Your task to perform on an android device: open chrome privacy settings Image 0: 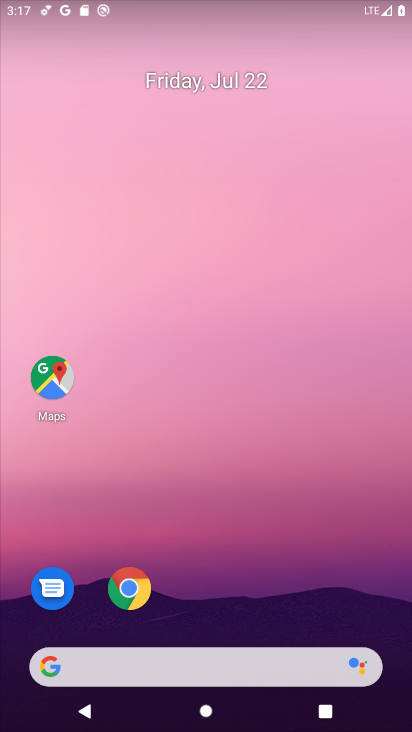
Step 0: drag from (261, 627) to (268, 103)
Your task to perform on an android device: open chrome privacy settings Image 1: 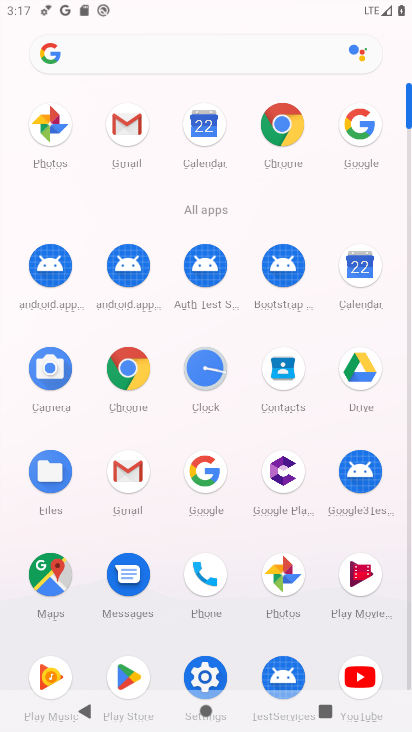
Step 1: click (270, 125)
Your task to perform on an android device: open chrome privacy settings Image 2: 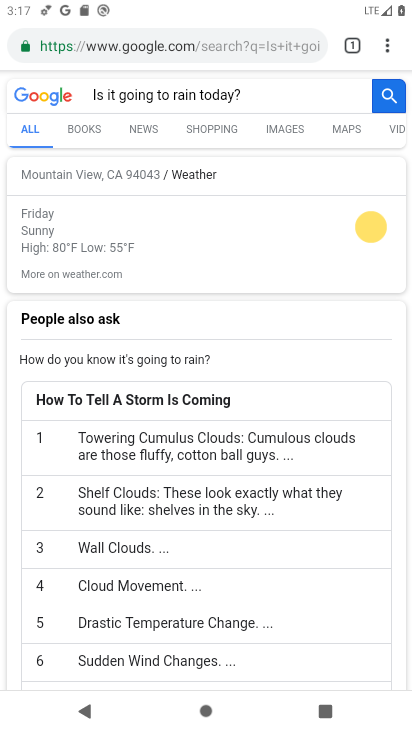
Step 2: click (384, 48)
Your task to perform on an android device: open chrome privacy settings Image 3: 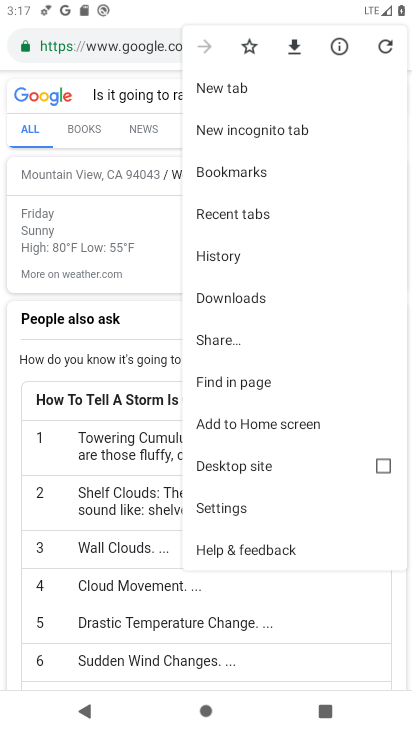
Step 3: click (251, 503)
Your task to perform on an android device: open chrome privacy settings Image 4: 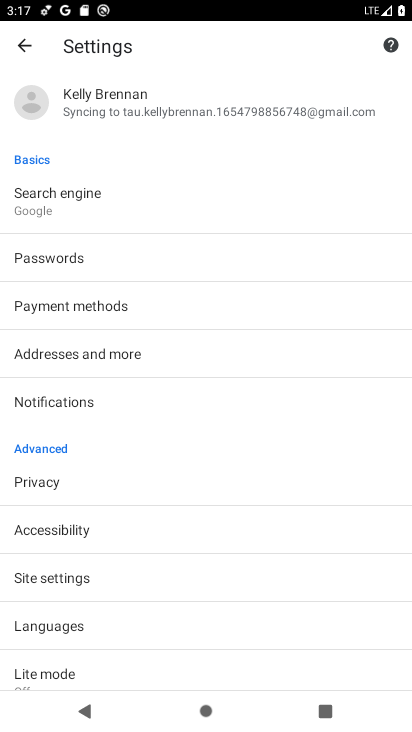
Step 4: click (31, 469)
Your task to perform on an android device: open chrome privacy settings Image 5: 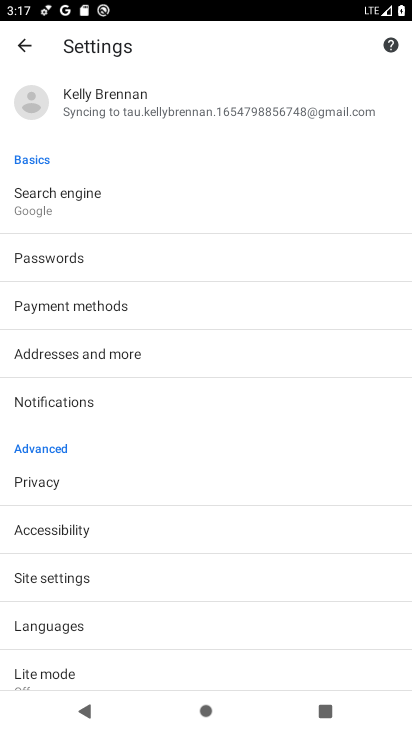
Step 5: click (40, 477)
Your task to perform on an android device: open chrome privacy settings Image 6: 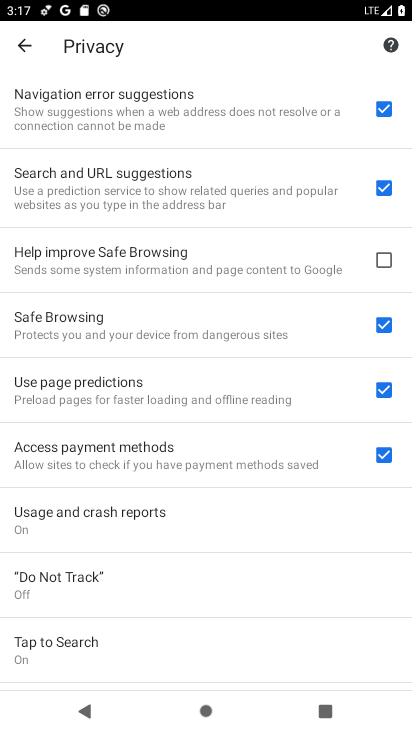
Step 6: task complete